Your task to perform on an android device: delete the emails in spam in the gmail app Image 0: 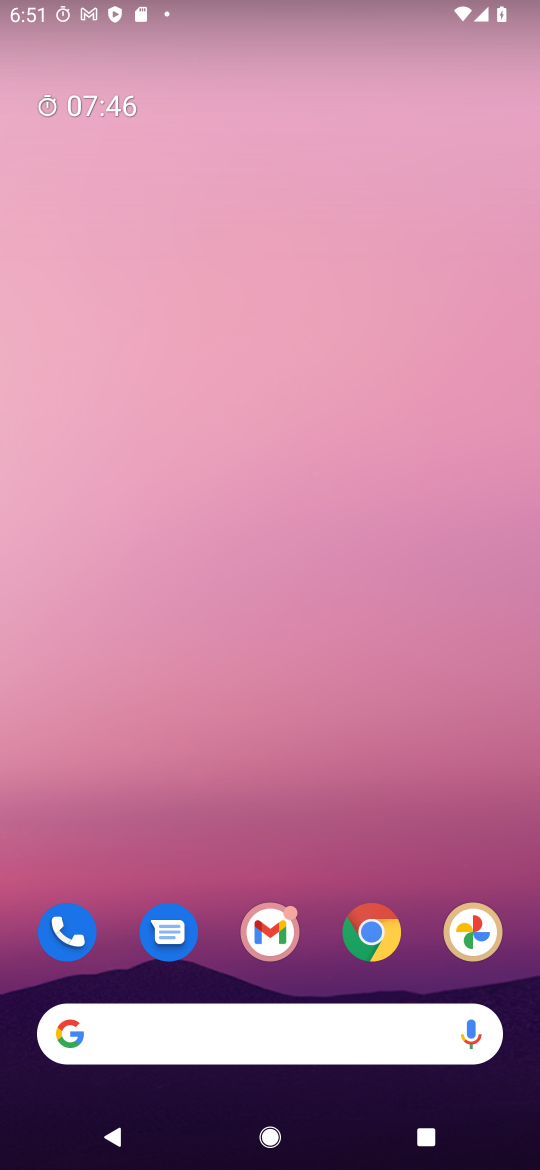
Step 0: drag from (310, 898) to (446, 676)
Your task to perform on an android device: delete the emails in spam in the gmail app Image 1: 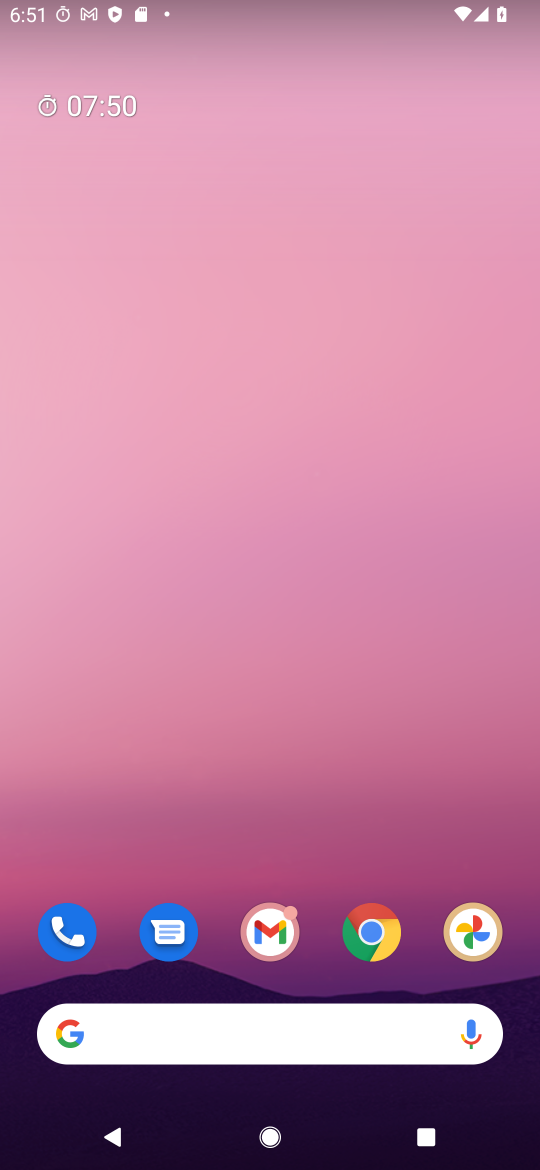
Step 1: drag from (369, 1070) to (286, 29)
Your task to perform on an android device: delete the emails in spam in the gmail app Image 2: 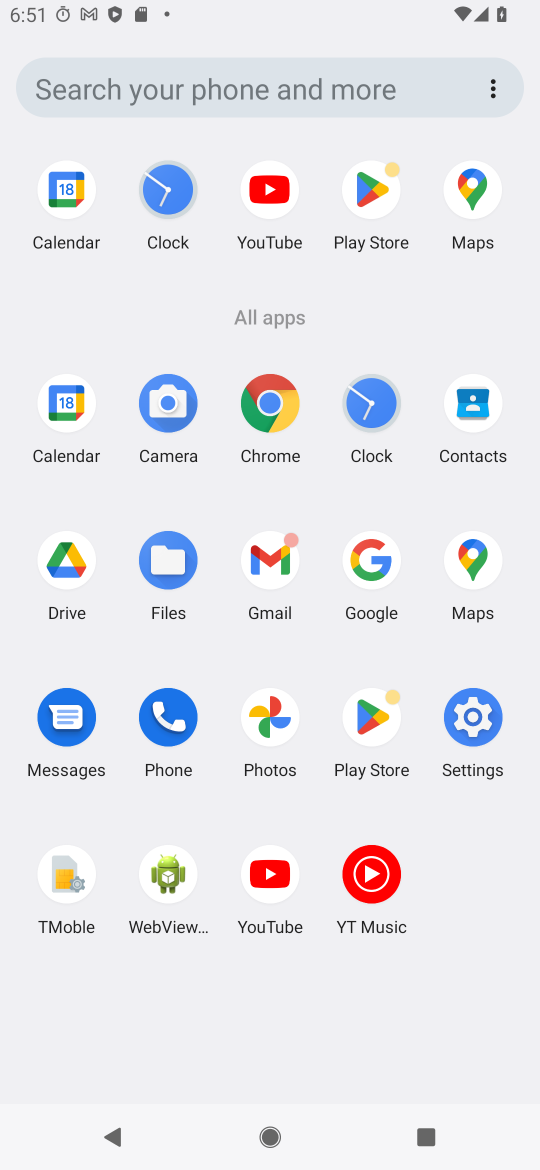
Step 2: click (272, 586)
Your task to perform on an android device: delete the emails in spam in the gmail app Image 3: 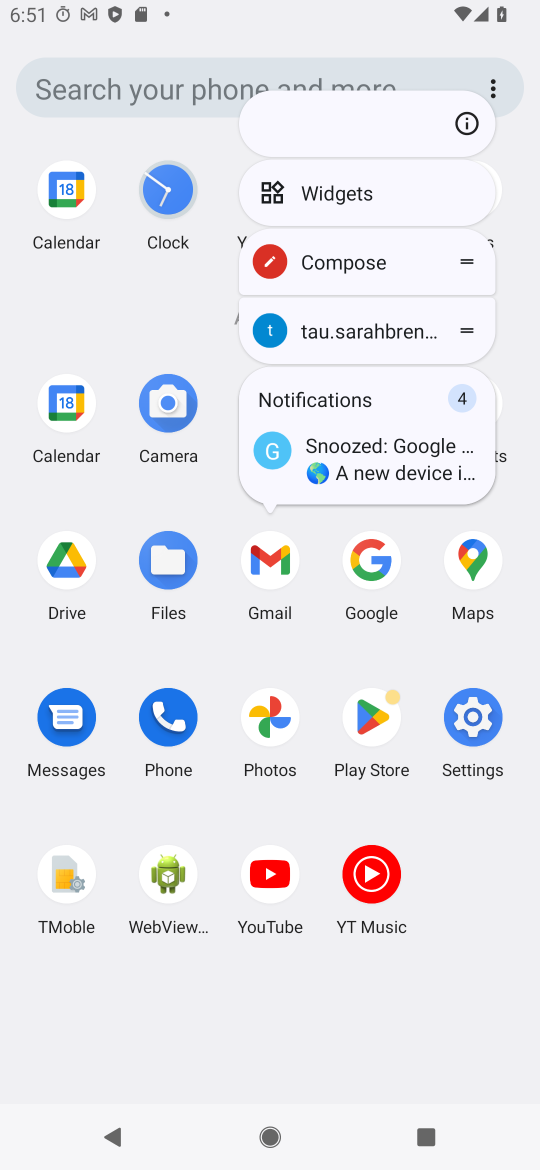
Step 3: click (463, 973)
Your task to perform on an android device: delete the emails in spam in the gmail app Image 4: 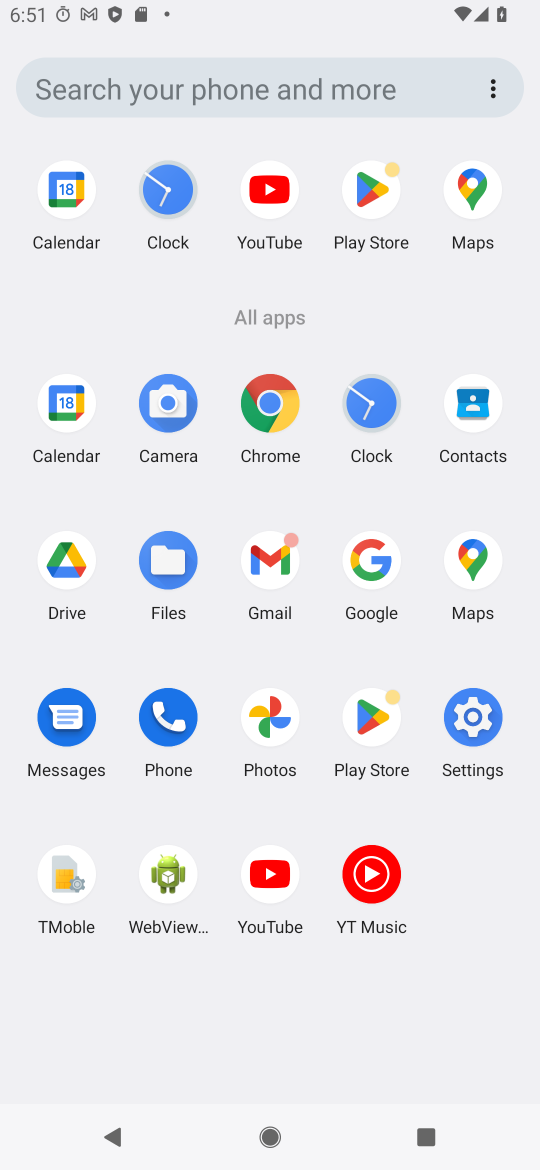
Step 4: click (267, 549)
Your task to perform on an android device: delete the emails in spam in the gmail app Image 5: 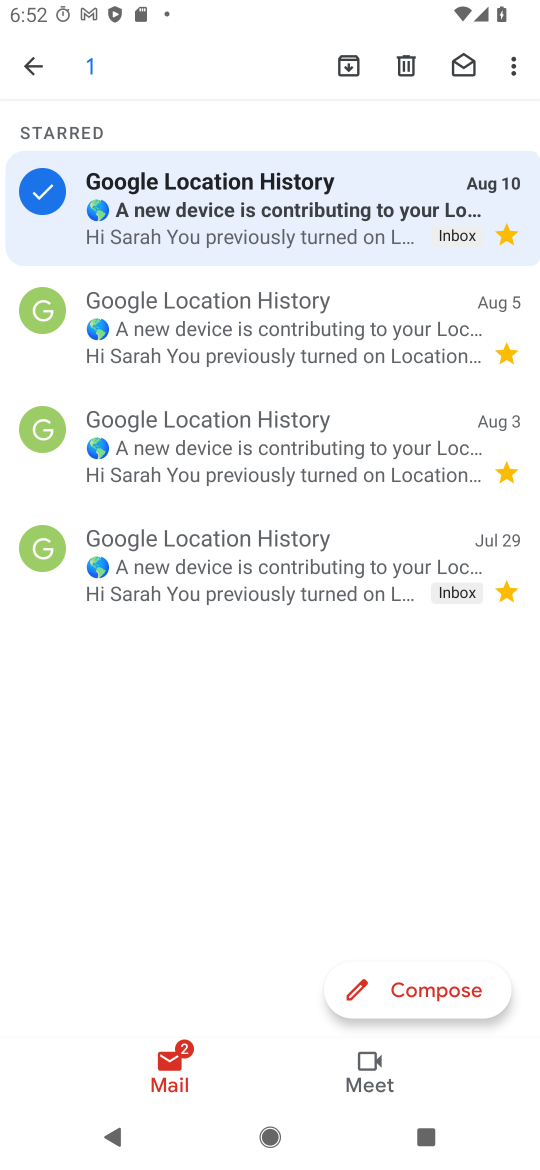
Step 5: click (24, 67)
Your task to perform on an android device: delete the emails in spam in the gmail app Image 6: 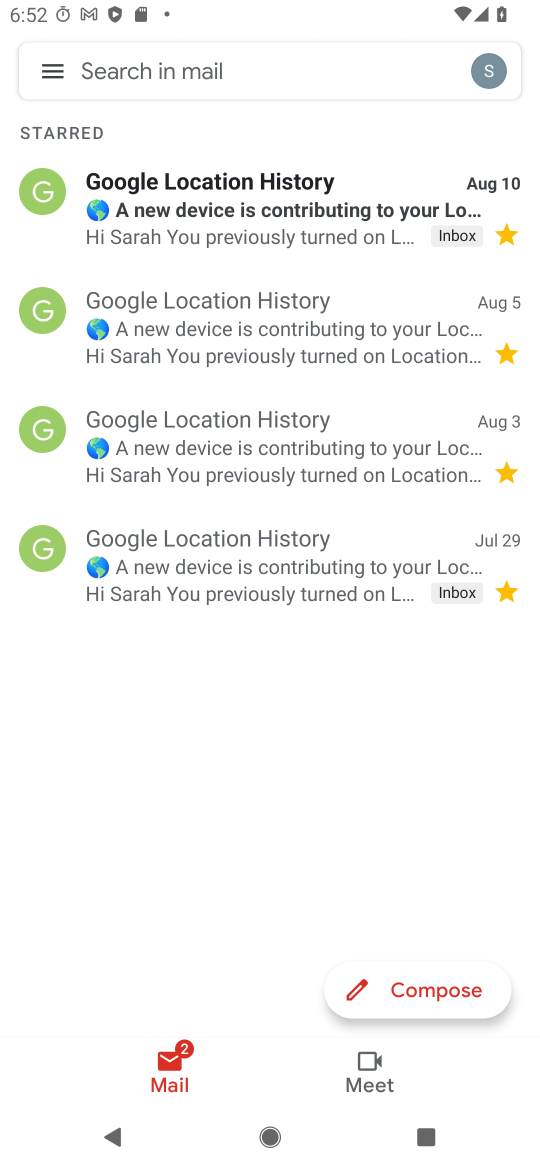
Step 6: click (46, 60)
Your task to perform on an android device: delete the emails in spam in the gmail app Image 7: 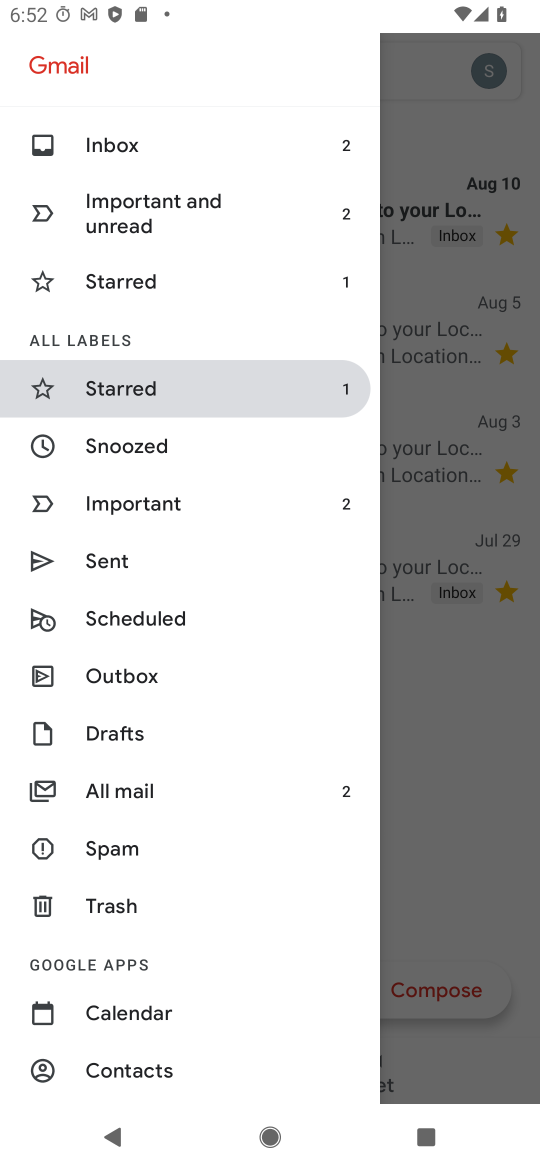
Step 7: click (96, 846)
Your task to perform on an android device: delete the emails in spam in the gmail app Image 8: 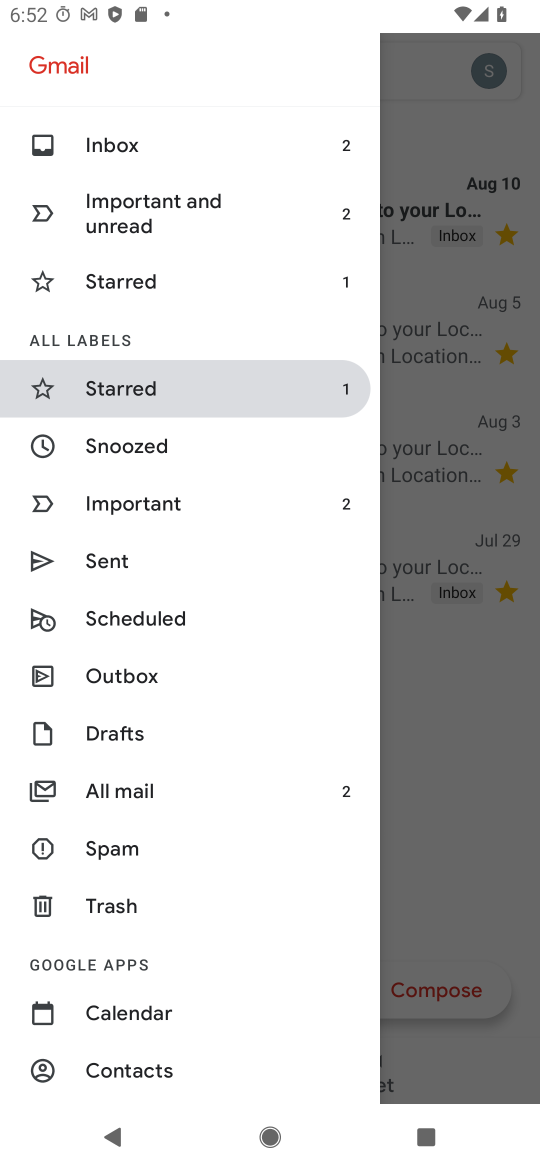
Step 8: click (121, 847)
Your task to perform on an android device: delete the emails in spam in the gmail app Image 9: 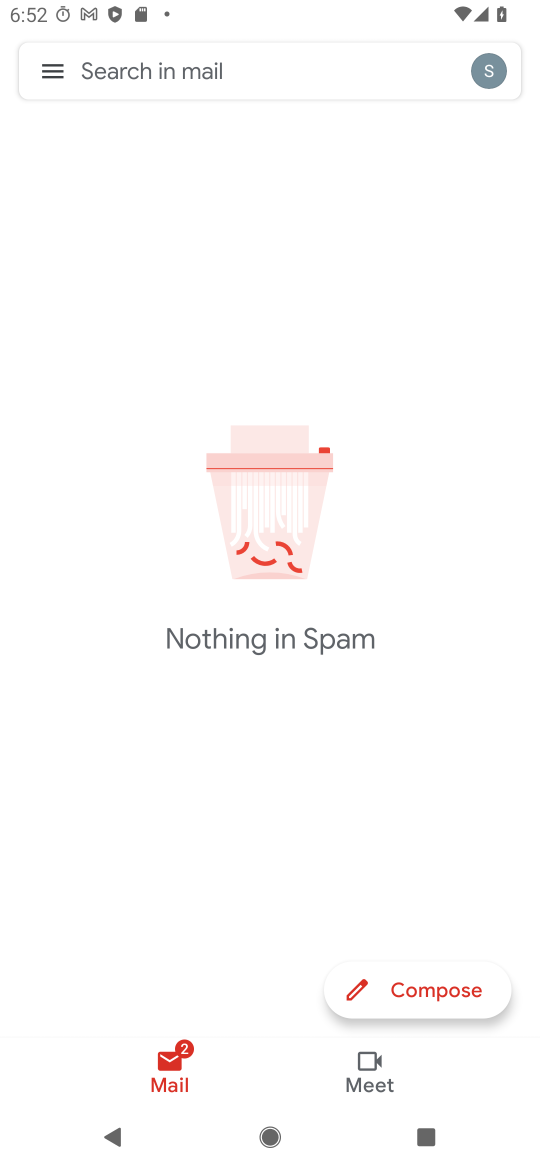
Step 9: task complete